Your task to perform on an android device: choose inbox layout in the gmail app Image 0: 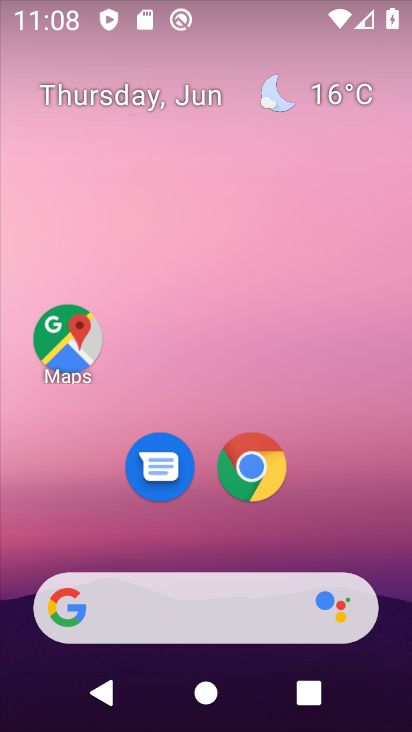
Step 0: drag from (388, 577) to (352, 103)
Your task to perform on an android device: choose inbox layout in the gmail app Image 1: 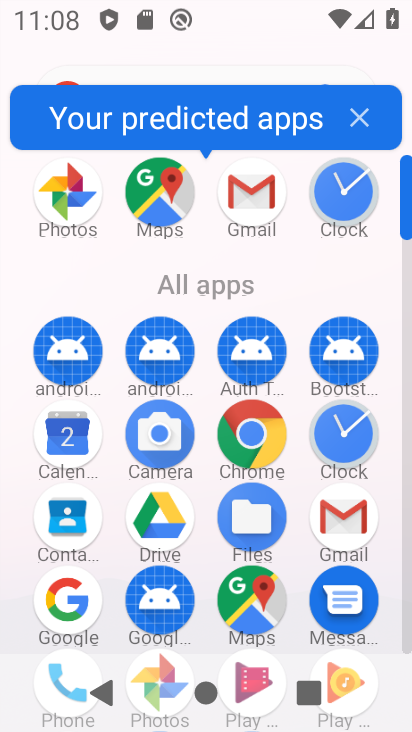
Step 1: click (405, 643)
Your task to perform on an android device: choose inbox layout in the gmail app Image 2: 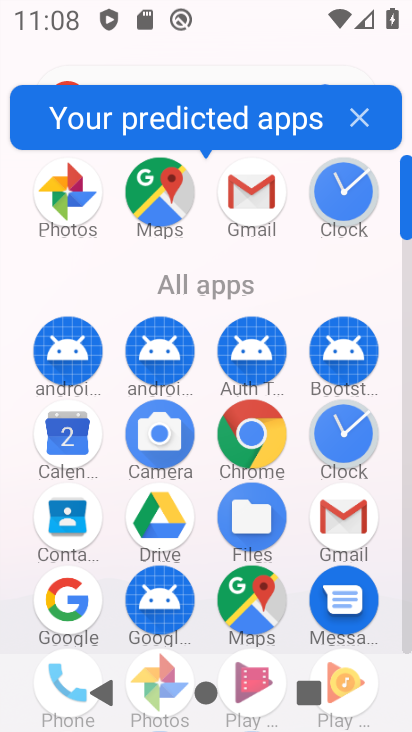
Step 2: click (405, 643)
Your task to perform on an android device: choose inbox layout in the gmail app Image 3: 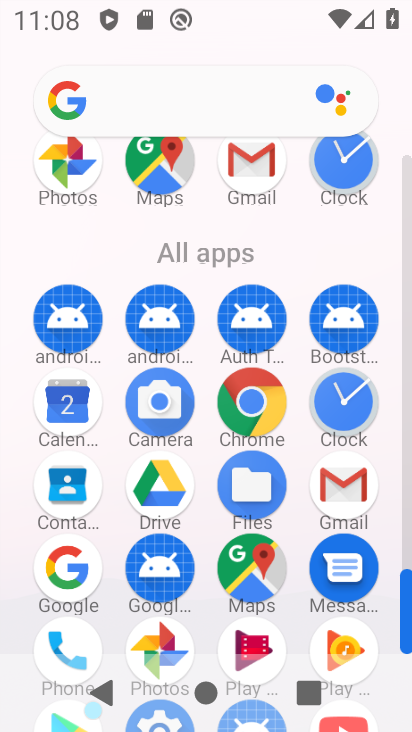
Step 3: click (339, 486)
Your task to perform on an android device: choose inbox layout in the gmail app Image 4: 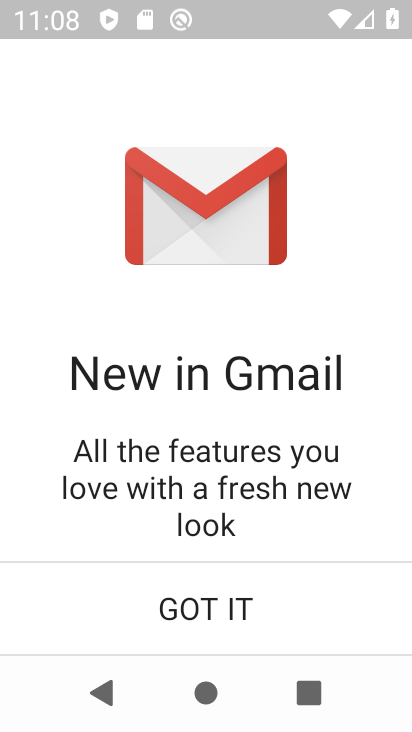
Step 4: click (215, 618)
Your task to perform on an android device: choose inbox layout in the gmail app Image 5: 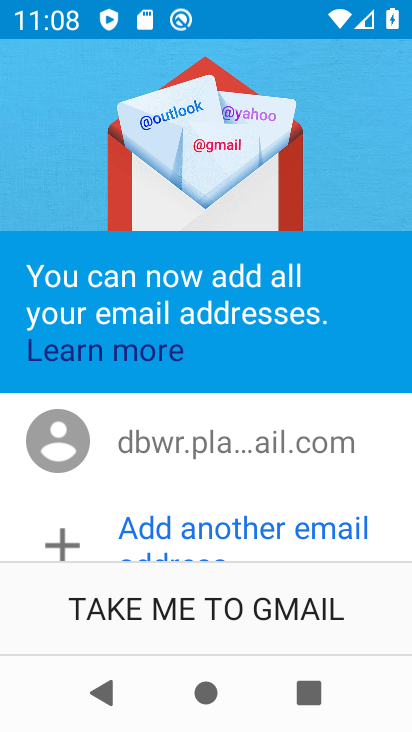
Step 5: click (215, 618)
Your task to perform on an android device: choose inbox layout in the gmail app Image 6: 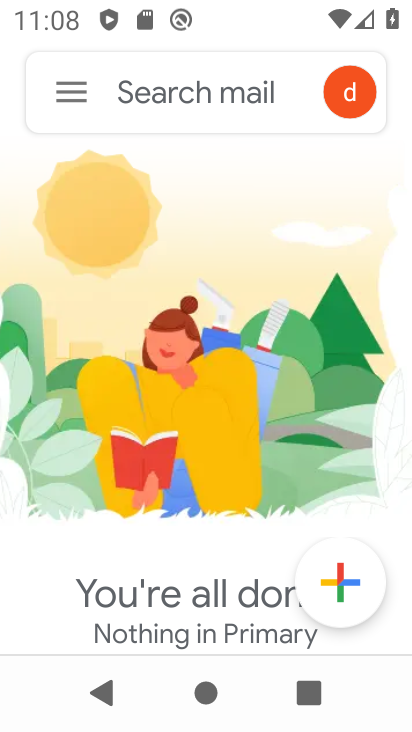
Step 6: click (69, 87)
Your task to perform on an android device: choose inbox layout in the gmail app Image 7: 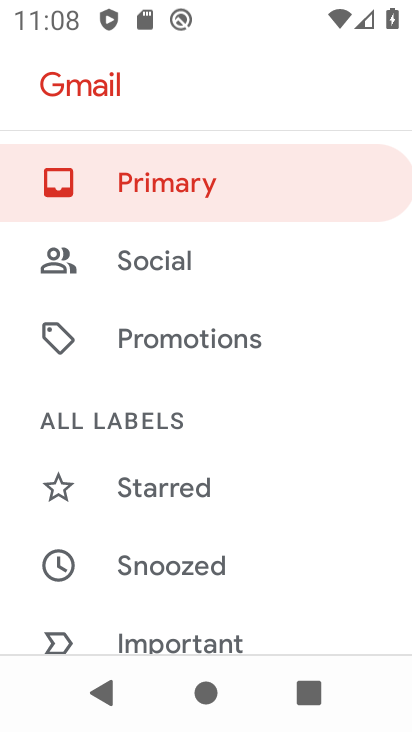
Step 7: drag from (251, 562) to (295, 178)
Your task to perform on an android device: choose inbox layout in the gmail app Image 8: 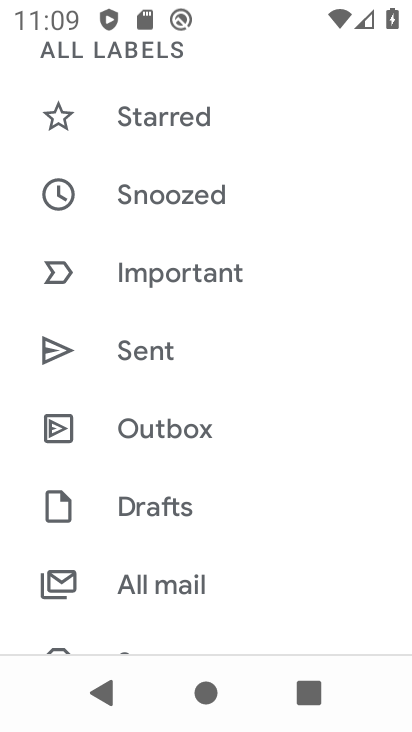
Step 8: drag from (257, 587) to (300, 19)
Your task to perform on an android device: choose inbox layout in the gmail app Image 9: 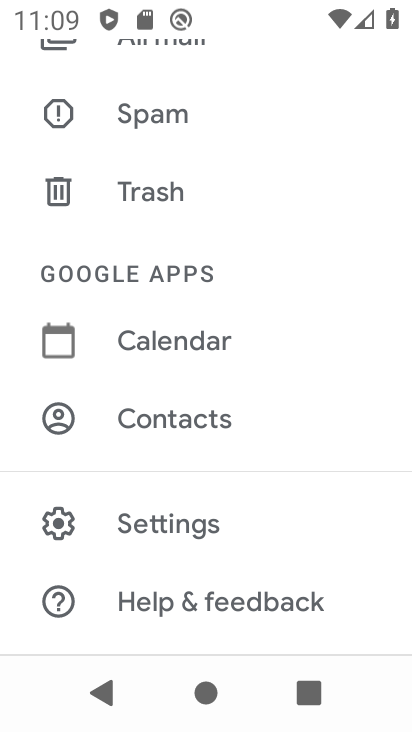
Step 9: click (132, 518)
Your task to perform on an android device: choose inbox layout in the gmail app Image 10: 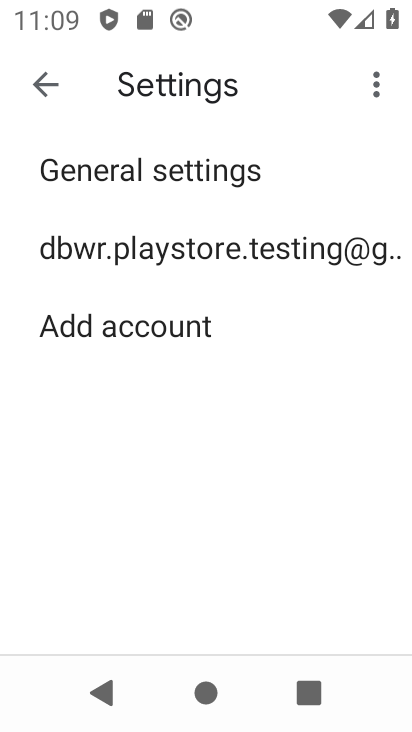
Step 10: click (199, 239)
Your task to perform on an android device: choose inbox layout in the gmail app Image 11: 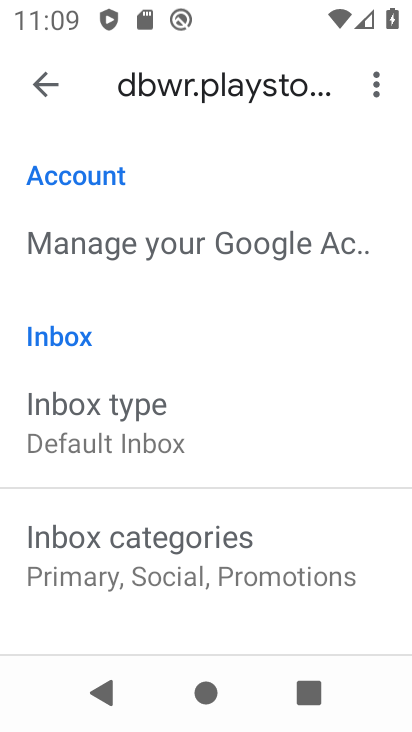
Step 11: click (127, 408)
Your task to perform on an android device: choose inbox layout in the gmail app Image 12: 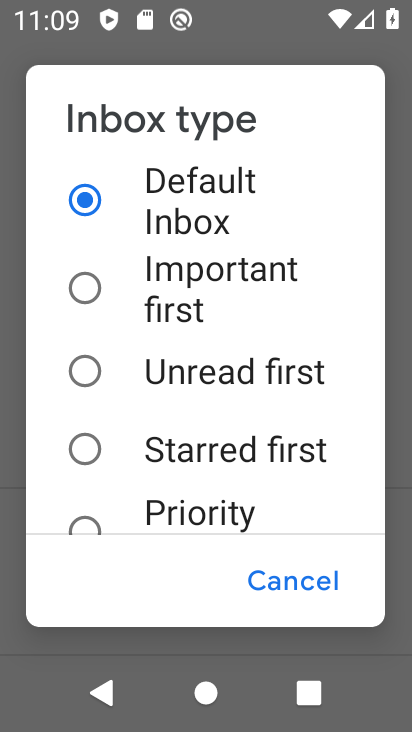
Step 12: click (82, 291)
Your task to perform on an android device: choose inbox layout in the gmail app Image 13: 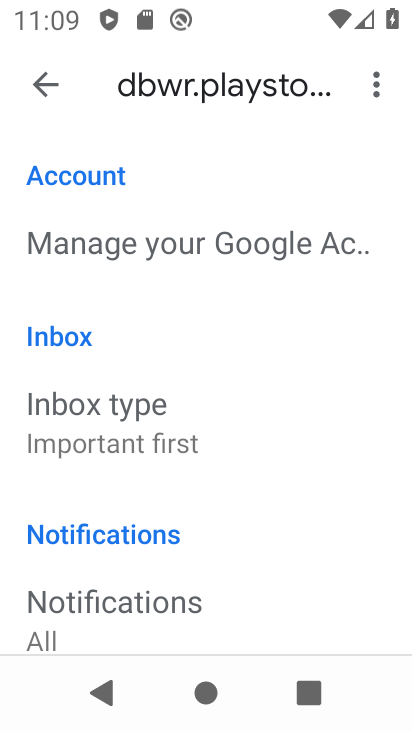
Step 13: task complete